Your task to perform on an android device: Go to Yahoo.com Image 0: 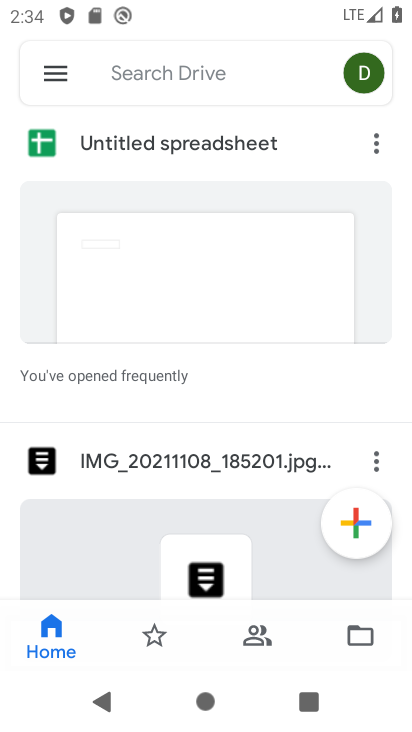
Step 0: press home button
Your task to perform on an android device: Go to Yahoo.com Image 1: 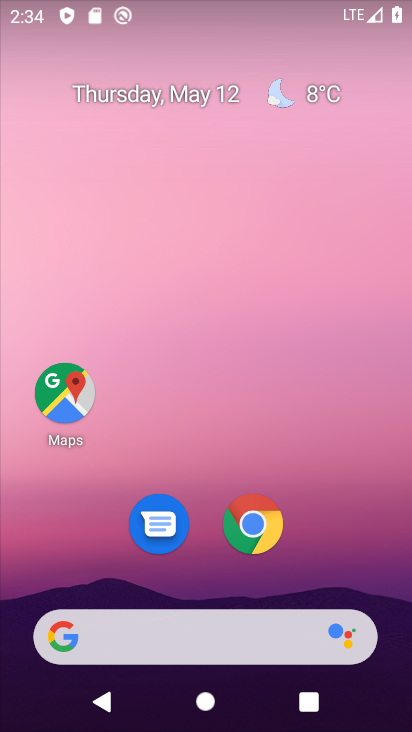
Step 1: click (290, 633)
Your task to perform on an android device: Go to Yahoo.com Image 2: 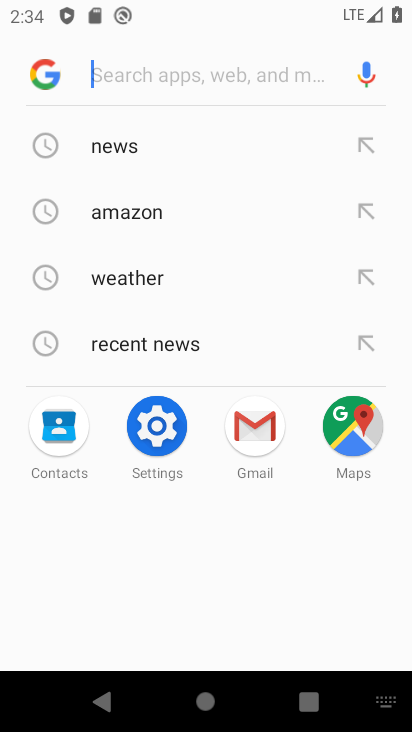
Step 2: type "yahoo.com"
Your task to perform on an android device: Go to Yahoo.com Image 3: 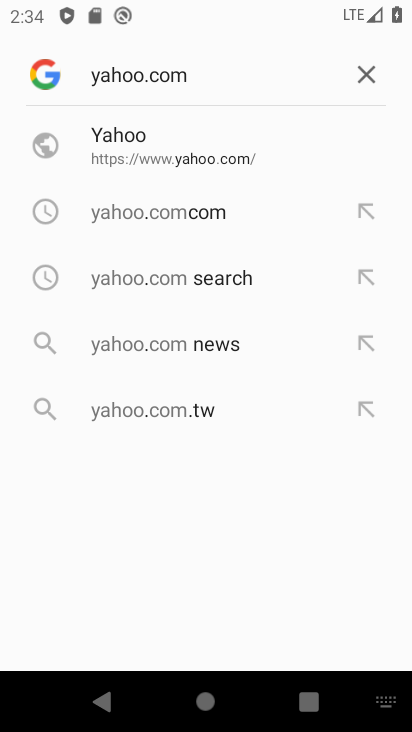
Step 3: click (111, 130)
Your task to perform on an android device: Go to Yahoo.com Image 4: 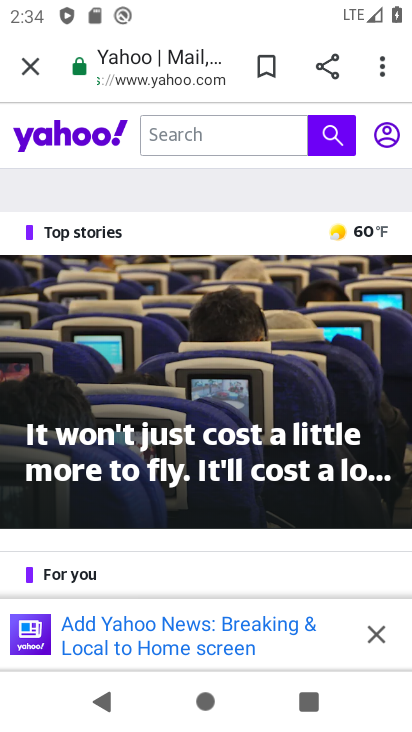
Step 4: task complete